Your task to perform on an android device: How much does a 3 bedroom apartment rent for in Philadelphia? Image 0: 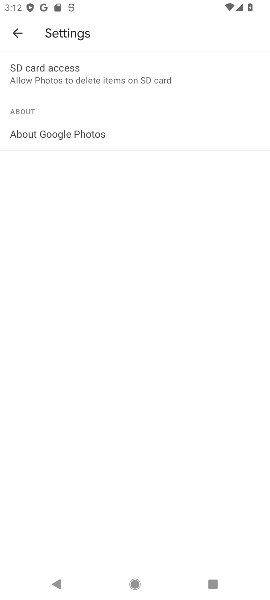
Step 0: press home button
Your task to perform on an android device: How much does a 3 bedroom apartment rent for in Philadelphia? Image 1: 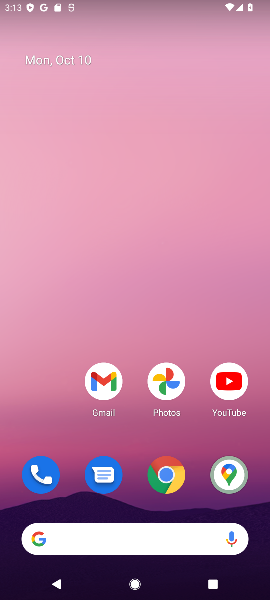
Step 1: drag from (149, 484) to (169, 292)
Your task to perform on an android device: How much does a 3 bedroom apartment rent for in Philadelphia? Image 2: 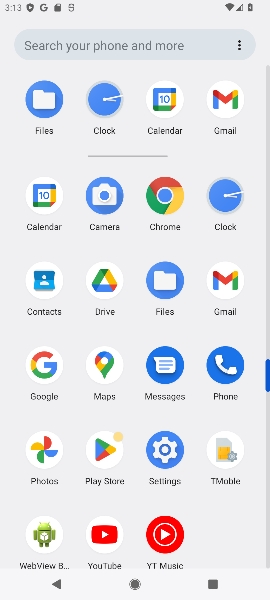
Step 2: click (44, 380)
Your task to perform on an android device: How much does a 3 bedroom apartment rent for in Philadelphia? Image 3: 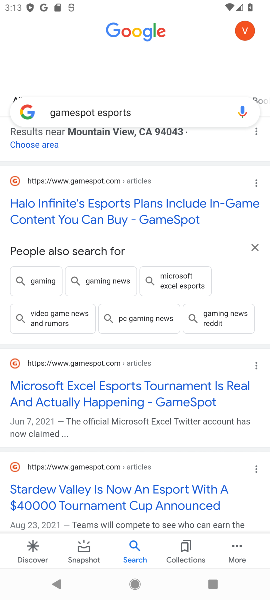
Step 3: click (196, 105)
Your task to perform on an android device: How much does a 3 bedroom apartment rent for in Philadelphia? Image 4: 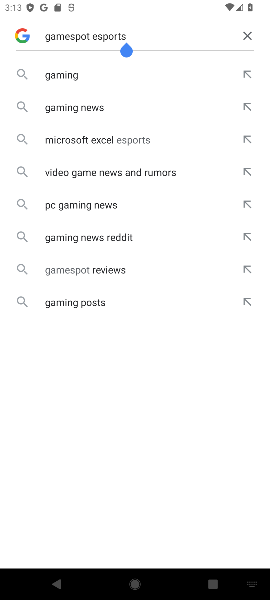
Step 4: click (248, 39)
Your task to perform on an android device: How much does a 3 bedroom apartment rent for in Philadelphia? Image 5: 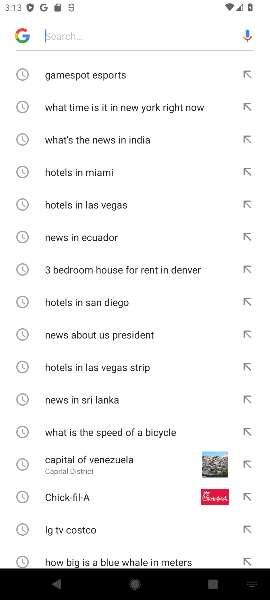
Step 5: type "How much does a 3 bedroom apartment rent for in Philadelphia?"
Your task to perform on an android device: How much does a 3 bedroom apartment rent for in Philadelphia? Image 6: 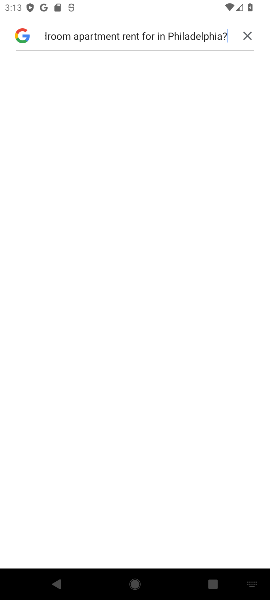
Step 6: task complete